Your task to perform on an android device: Open the phone app and click the voicemail tab. Image 0: 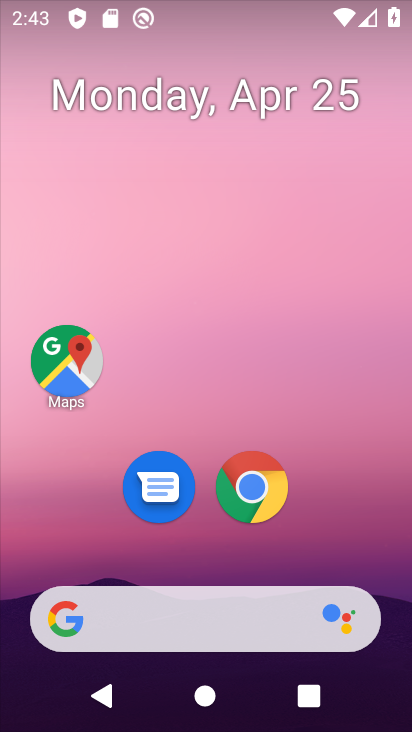
Step 0: drag from (147, 574) to (300, 61)
Your task to perform on an android device: Open the phone app and click the voicemail tab. Image 1: 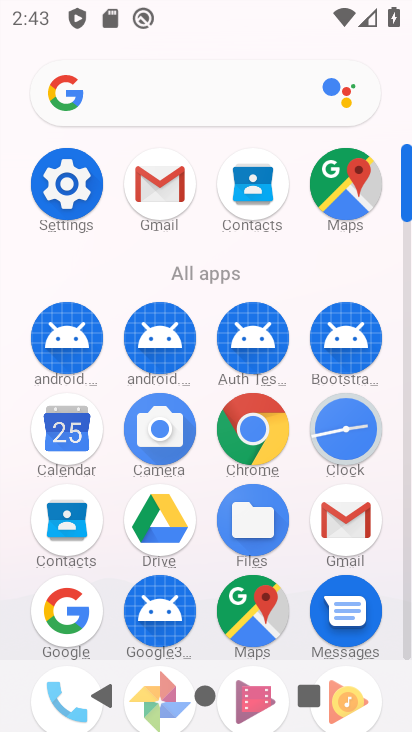
Step 1: drag from (161, 618) to (229, 273)
Your task to perform on an android device: Open the phone app and click the voicemail tab. Image 2: 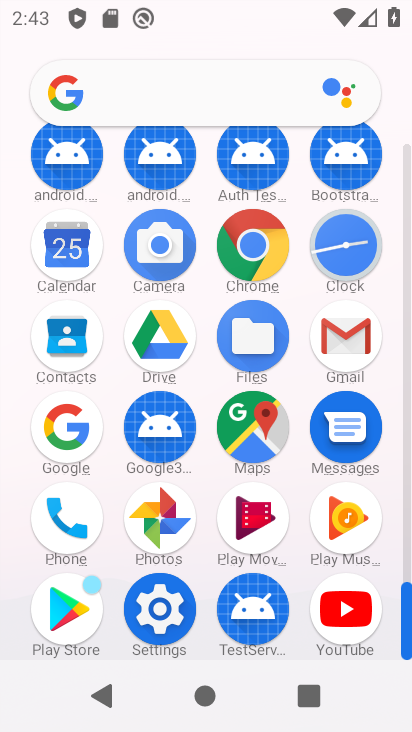
Step 2: click (69, 526)
Your task to perform on an android device: Open the phone app and click the voicemail tab. Image 3: 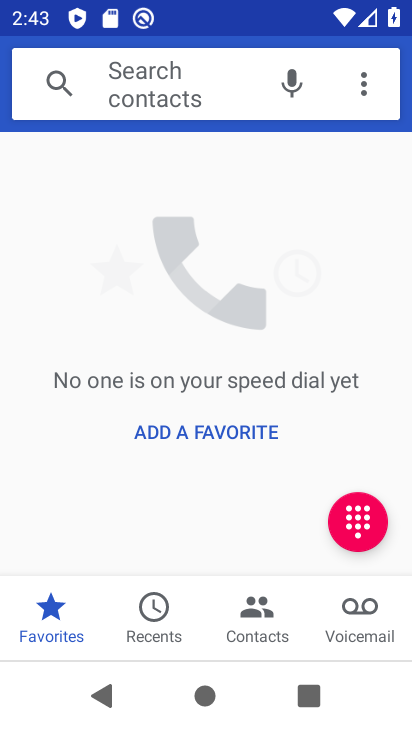
Step 3: click (370, 604)
Your task to perform on an android device: Open the phone app and click the voicemail tab. Image 4: 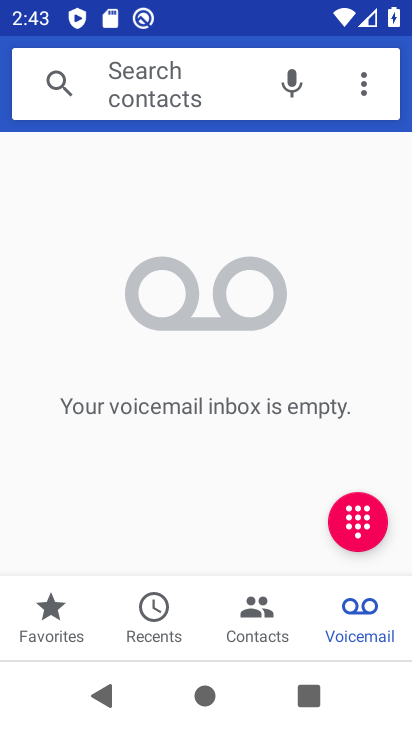
Step 4: task complete